Your task to perform on an android device: Go to eBay Image 0: 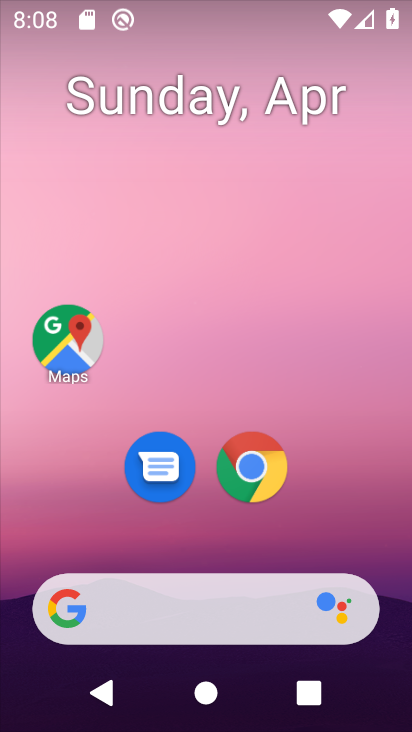
Step 0: click (260, 468)
Your task to perform on an android device: Go to eBay Image 1: 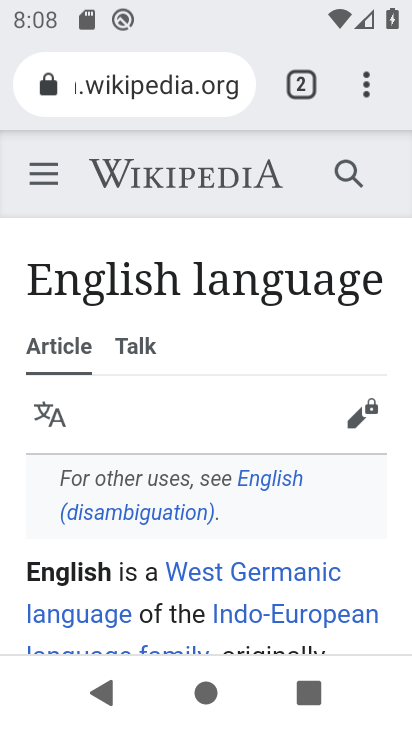
Step 1: click (92, 74)
Your task to perform on an android device: Go to eBay Image 2: 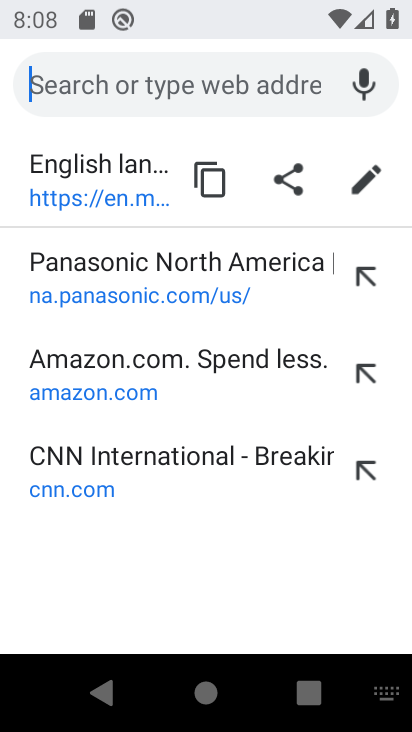
Step 2: type "ebay"
Your task to perform on an android device: Go to eBay Image 3: 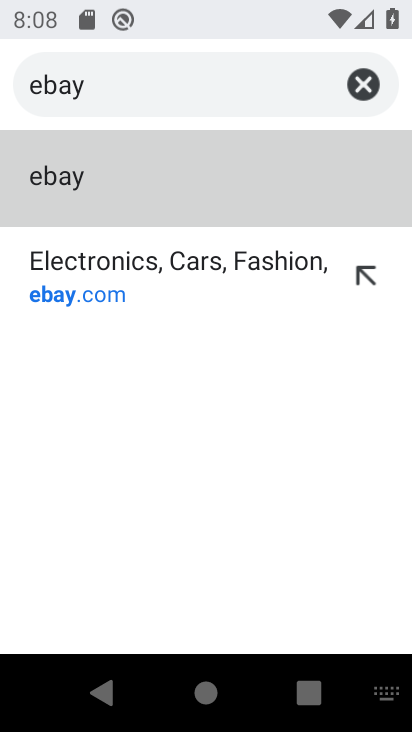
Step 3: click (42, 181)
Your task to perform on an android device: Go to eBay Image 4: 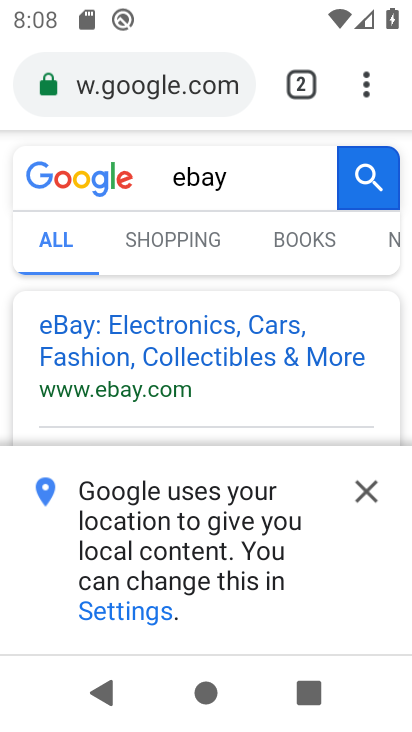
Step 4: click (213, 355)
Your task to perform on an android device: Go to eBay Image 5: 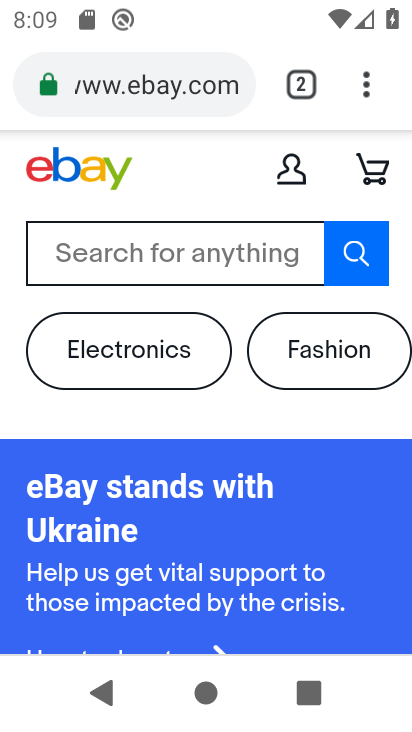
Step 5: task complete